Your task to perform on an android device: toggle notification dots Image 0: 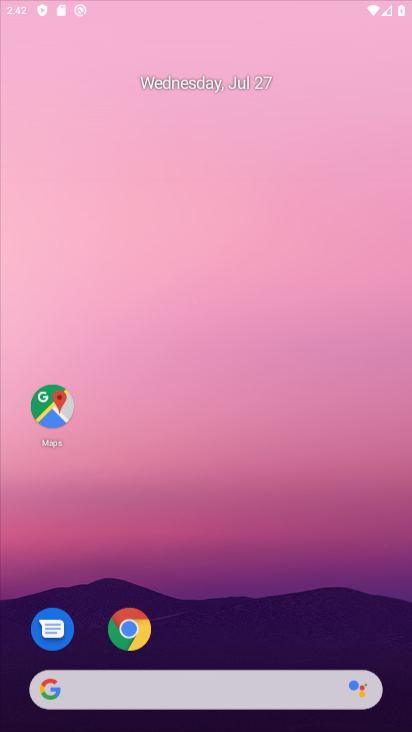
Step 0: press home button
Your task to perform on an android device: toggle notification dots Image 1: 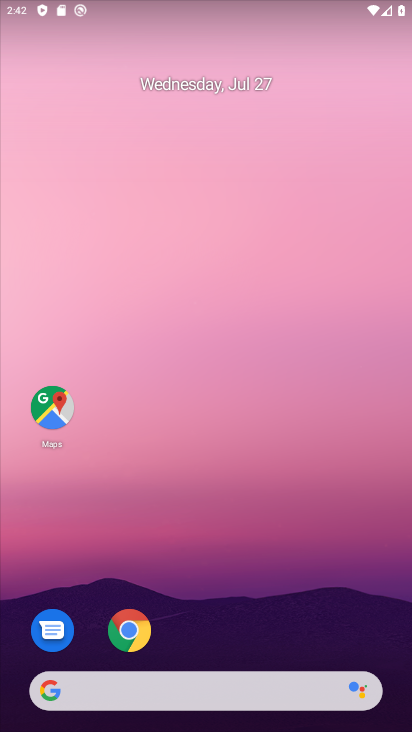
Step 1: drag from (263, 630) to (16, 16)
Your task to perform on an android device: toggle notification dots Image 2: 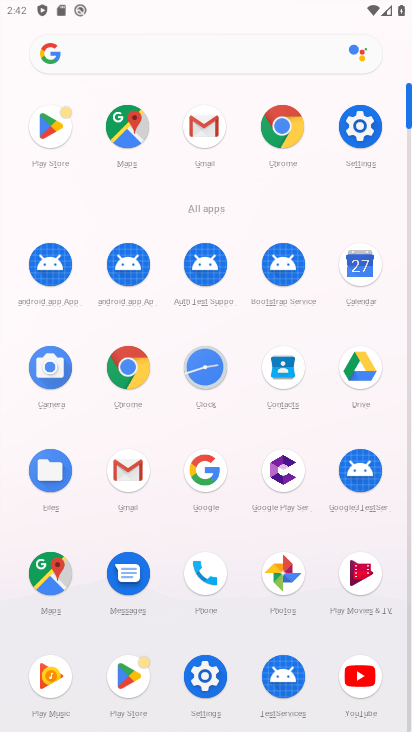
Step 2: drag from (364, 130) to (340, 172)
Your task to perform on an android device: toggle notification dots Image 3: 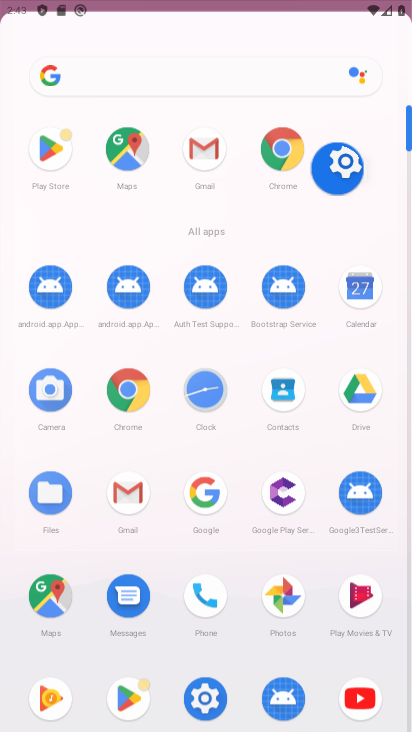
Step 3: click (355, 150)
Your task to perform on an android device: toggle notification dots Image 4: 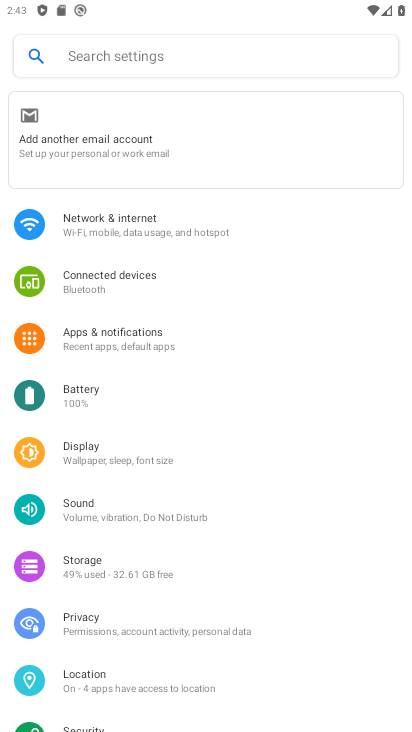
Step 4: click (82, 349)
Your task to perform on an android device: toggle notification dots Image 5: 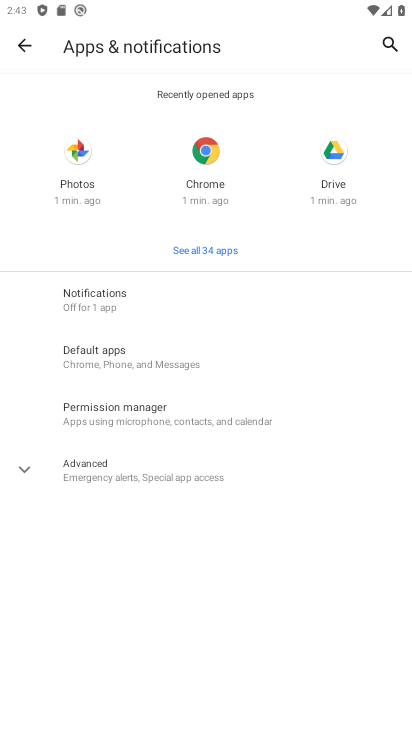
Step 5: click (104, 310)
Your task to perform on an android device: toggle notification dots Image 6: 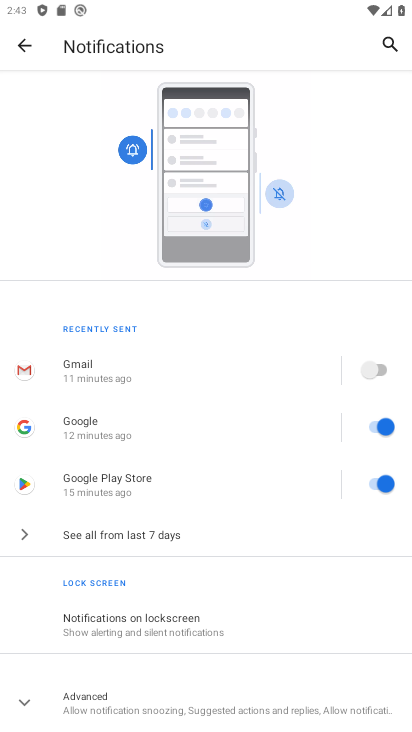
Step 6: click (72, 710)
Your task to perform on an android device: toggle notification dots Image 7: 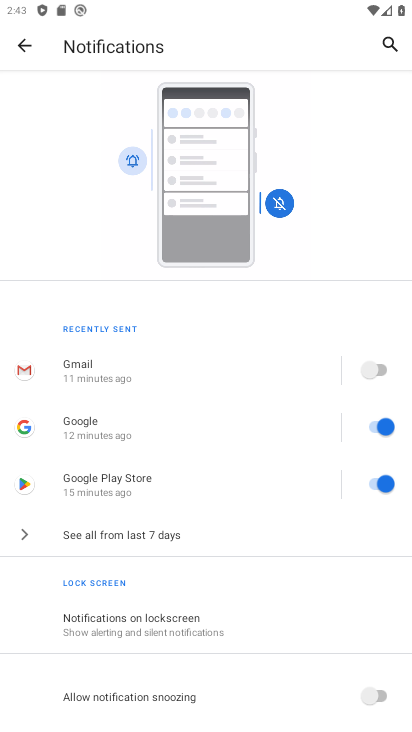
Step 7: drag from (295, 601) to (293, 255)
Your task to perform on an android device: toggle notification dots Image 8: 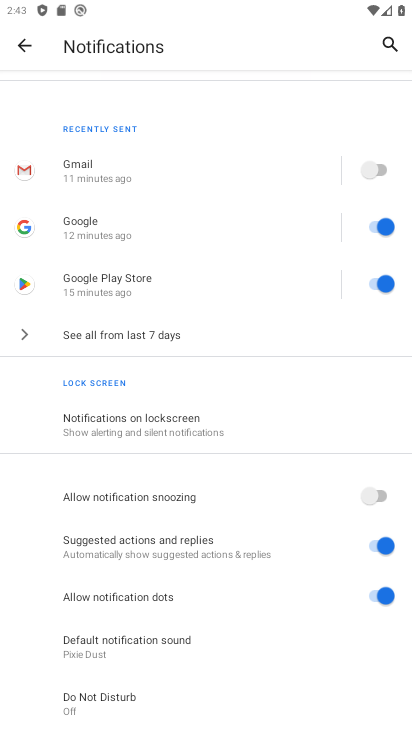
Step 8: click (378, 594)
Your task to perform on an android device: toggle notification dots Image 9: 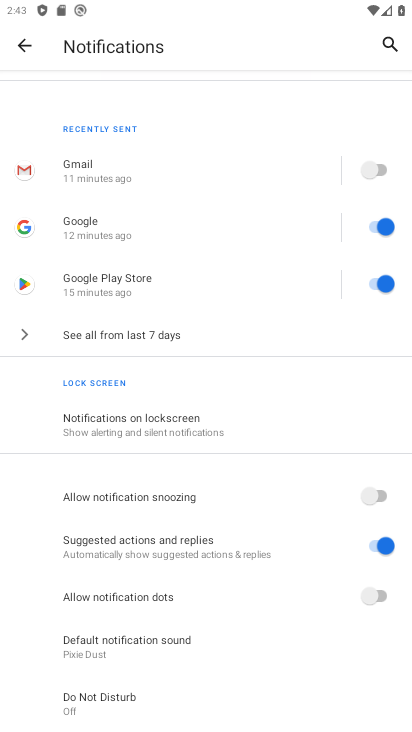
Step 9: task complete